Your task to perform on an android device: add a label to a message in the gmail app Image 0: 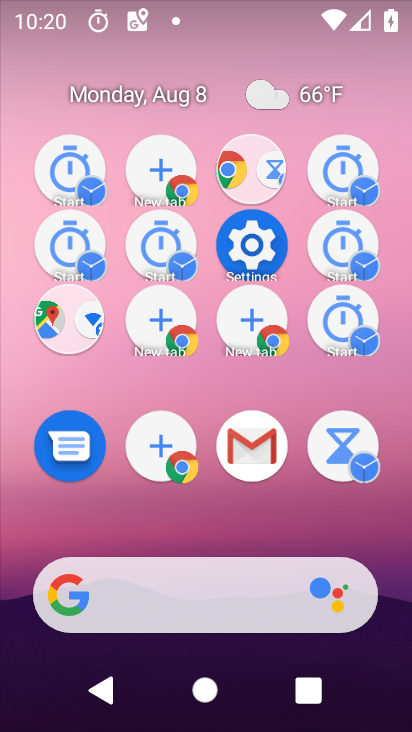
Step 0: drag from (254, 604) to (216, 271)
Your task to perform on an android device: add a label to a message in the gmail app Image 1: 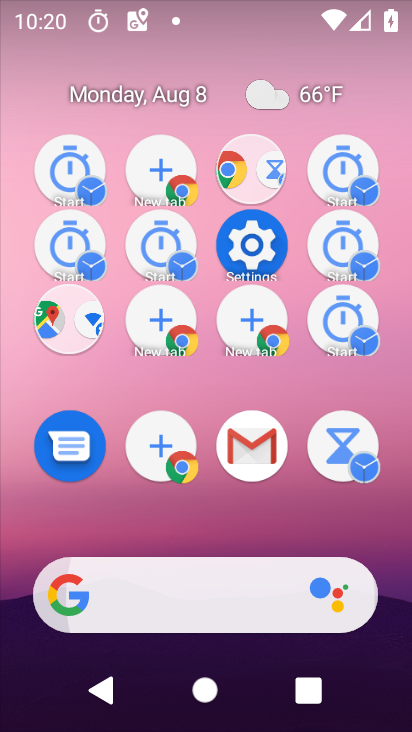
Step 1: drag from (238, 632) to (246, 278)
Your task to perform on an android device: add a label to a message in the gmail app Image 2: 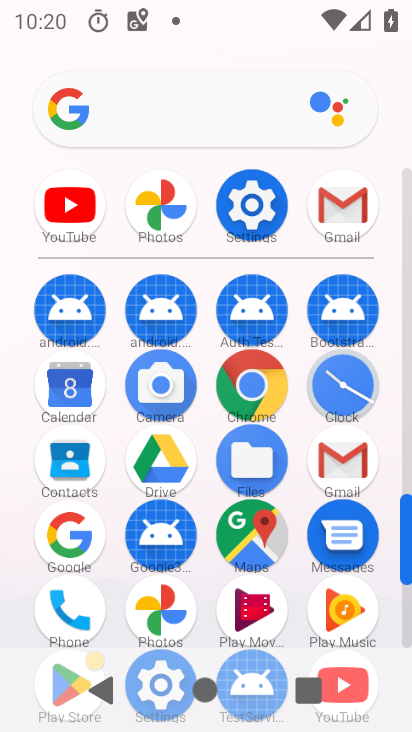
Step 2: drag from (282, 310) to (282, 272)
Your task to perform on an android device: add a label to a message in the gmail app Image 3: 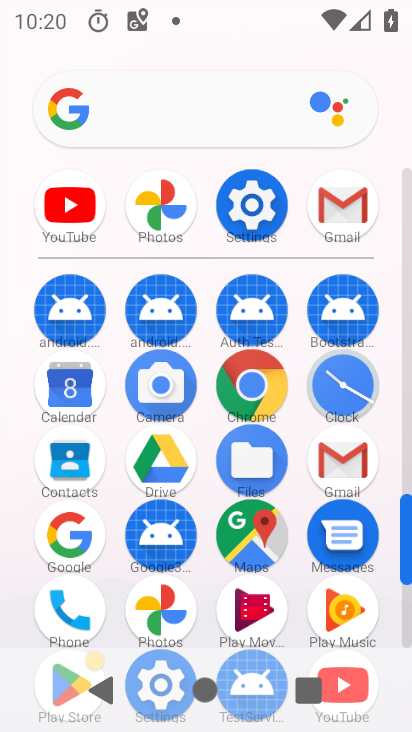
Step 3: click (336, 208)
Your task to perform on an android device: add a label to a message in the gmail app Image 4: 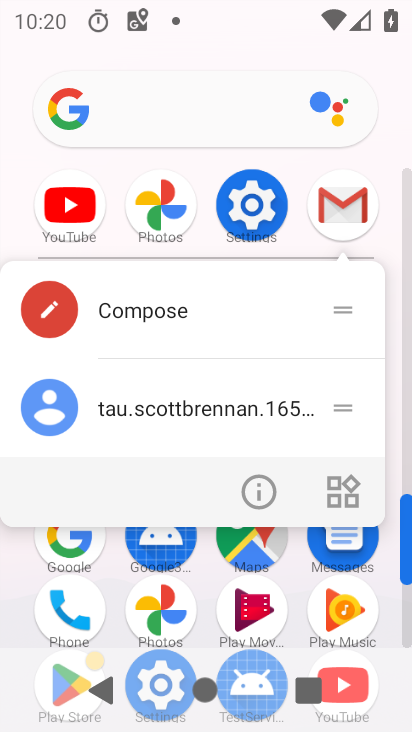
Step 4: click (192, 320)
Your task to perform on an android device: add a label to a message in the gmail app Image 5: 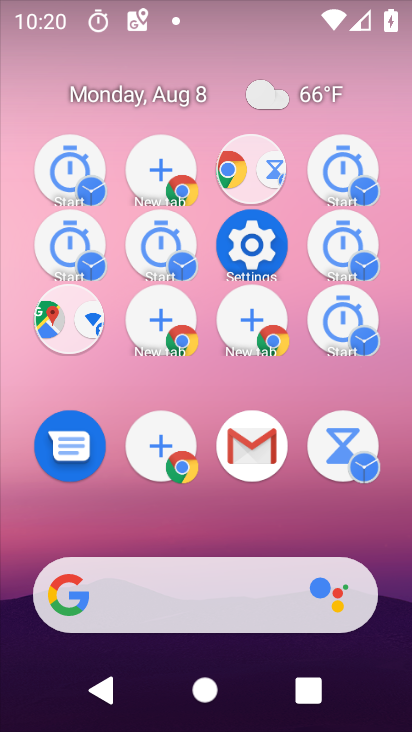
Step 5: press back button
Your task to perform on an android device: add a label to a message in the gmail app Image 6: 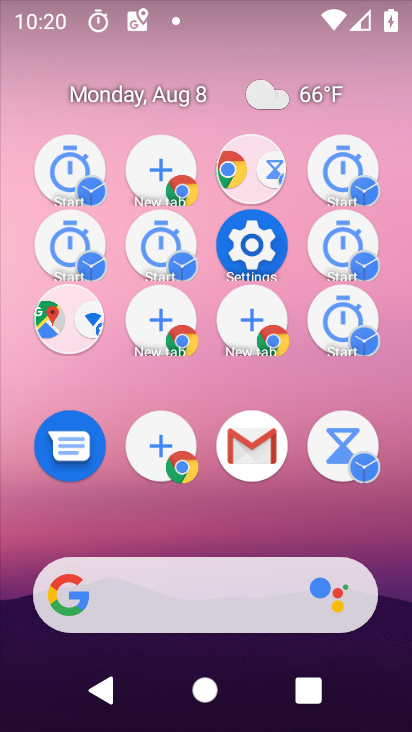
Step 6: drag from (237, 476) to (189, 238)
Your task to perform on an android device: add a label to a message in the gmail app Image 7: 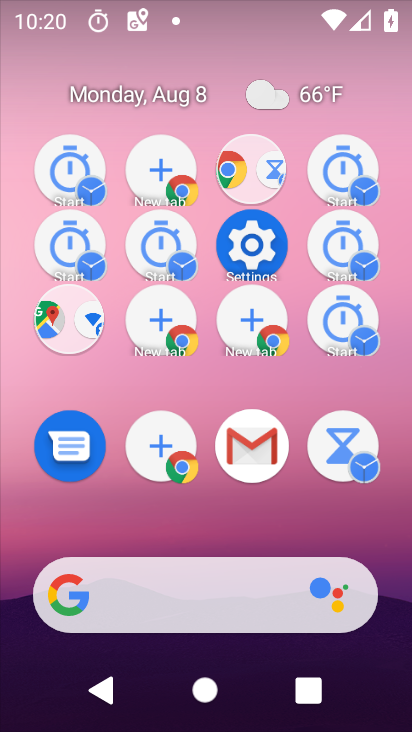
Step 7: drag from (159, 587) to (159, 343)
Your task to perform on an android device: add a label to a message in the gmail app Image 8: 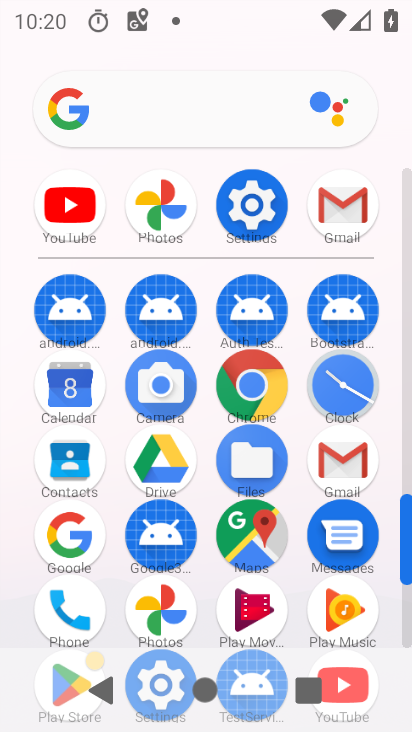
Step 8: click (347, 207)
Your task to perform on an android device: add a label to a message in the gmail app Image 9: 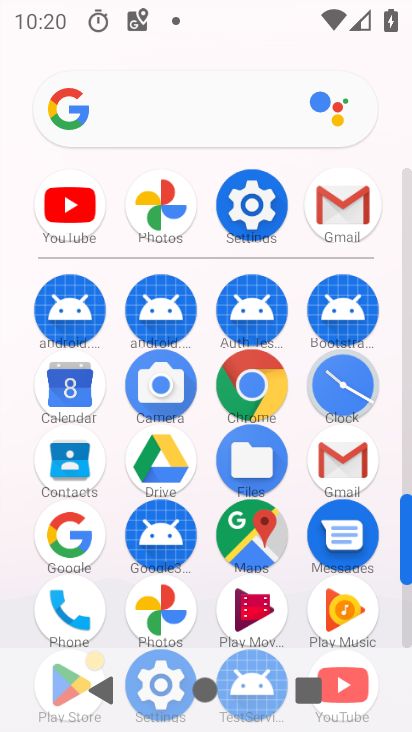
Step 9: click (345, 205)
Your task to perform on an android device: add a label to a message in the gmail app Image 10: 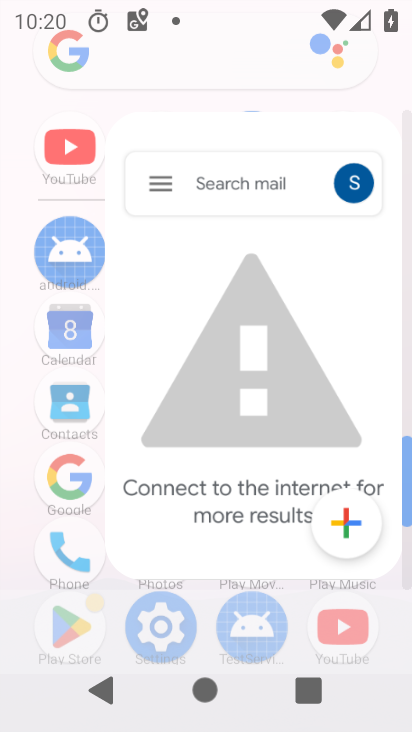
Step 10: click (344, 205)
Your task to perform on an android device: add a label to a message in the gmail app Image 11: 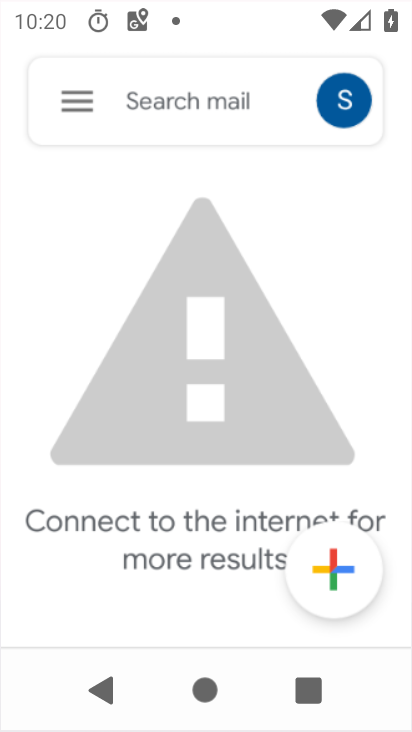
Step 11: click (344, 205)
Your task to perform on an android device: add a label to a message in the gmail app Image 12: 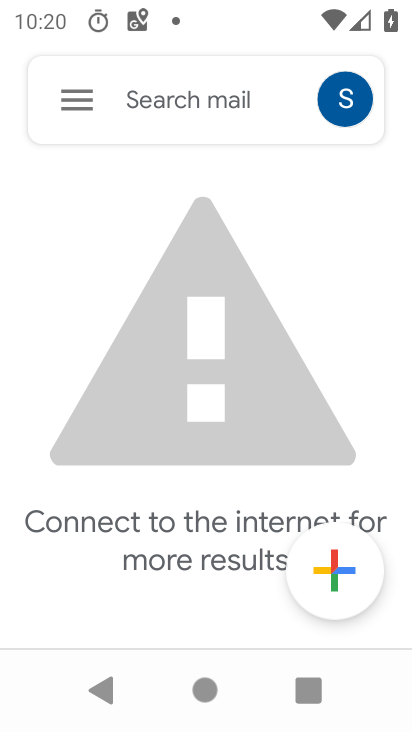
Step 12: press back button
Your task to perform on an android device: add a label to a message in the gmail app Image 13: 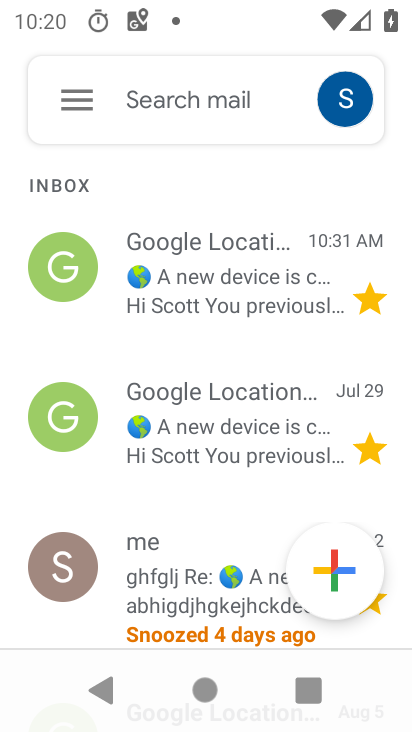
Step 13: drag from (186, 516) to (192, 263)
Your task to perform on an android device: add a label to a message in the gmail app Image 14: 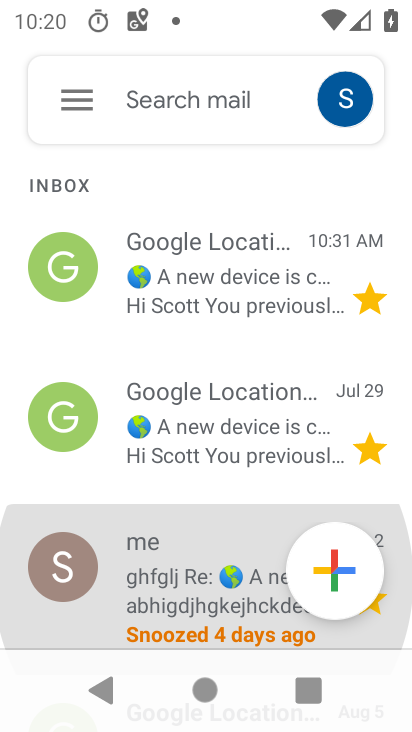
Step 14: drag from (247, 508) to (210, 208)
Your task to perform on an android device: add a label to a message in the gmail app Image 15: 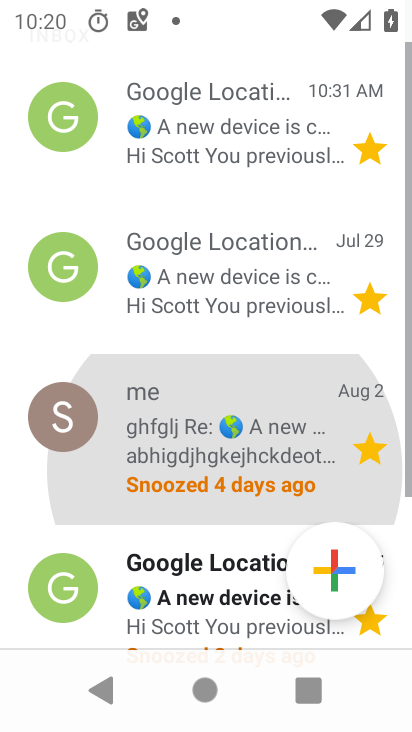
Step 15: drag from (236, 484) to (248, 120)
Your task to perform on an android device: add a label to a message in the gmail app Image 16: 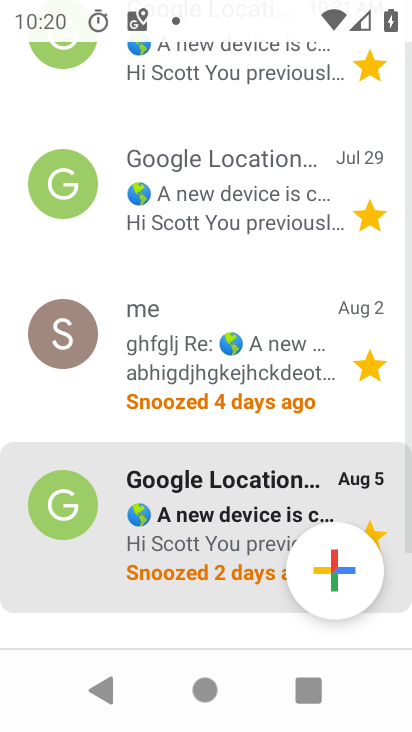
Step 16: drag from (324, 426) to (313, 177)
Your task to perform on an android device: add a label to a message in the gmail app Image 17: 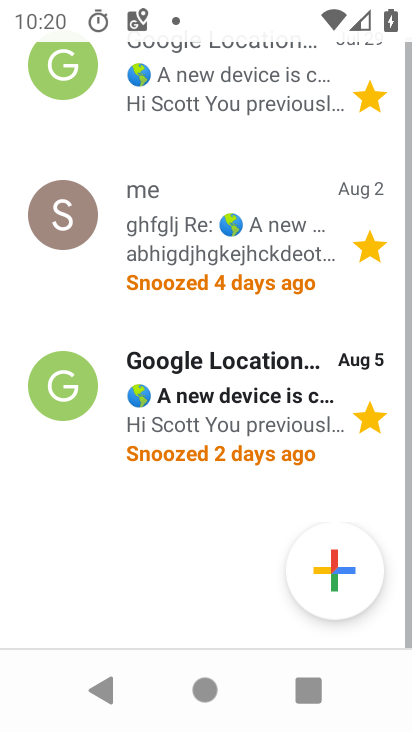
Step 17: drag from (309, 478) to (290, 219)
Your task to perform on an android device: add a label to a message in the gmail app Image 18: 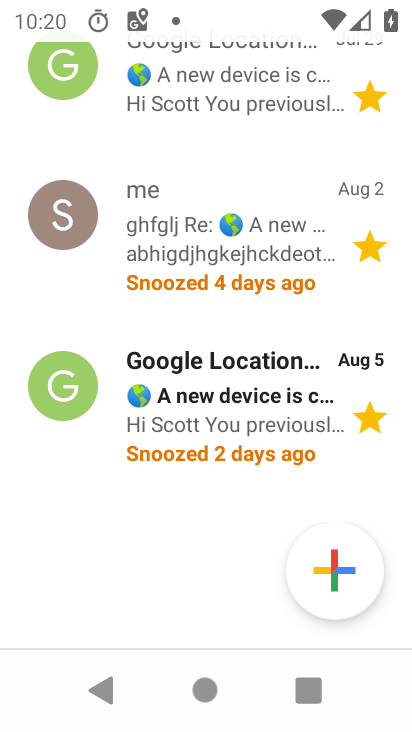
Step 18: drag from (175, 211) to (182, 479)
Your task to perform on an android device: add a label to a message in the gmail app Image 19: 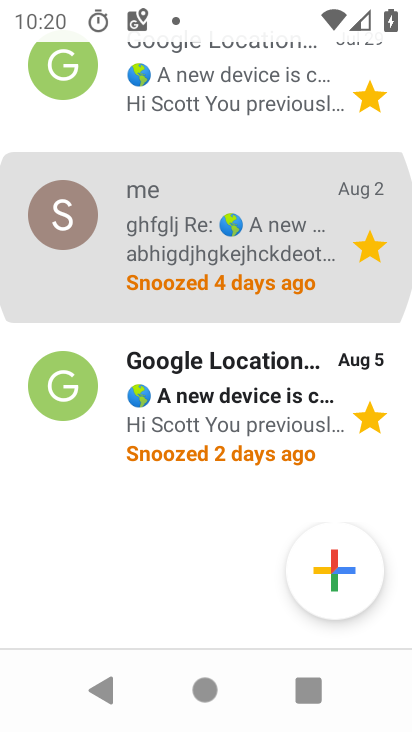
Step 19: drag from (183, 282) to (207, 527)
Your task to perform on an android device: add a label to a message in the gmail app Image 20: 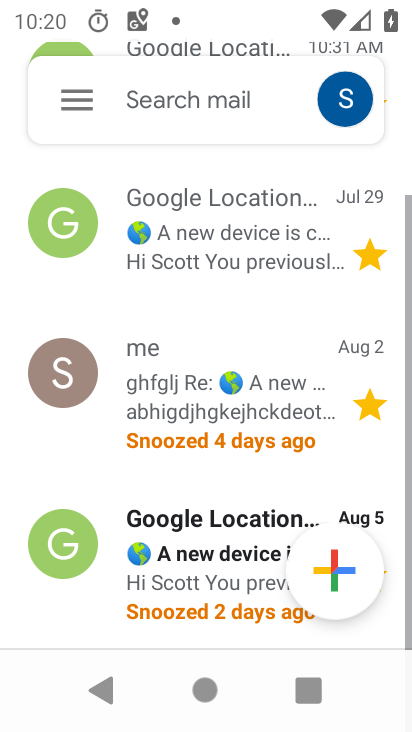
Step 20: click (216, 415)
Your task to perform on an android device: add a label to a message in the gmail app Image 21: 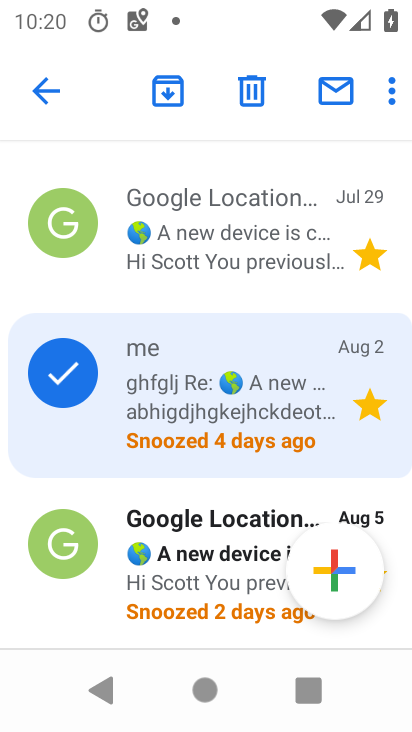
Step 21: click (390, 79)
Your task to perform on an android device: add a label to a message in the gmail app Image 22: 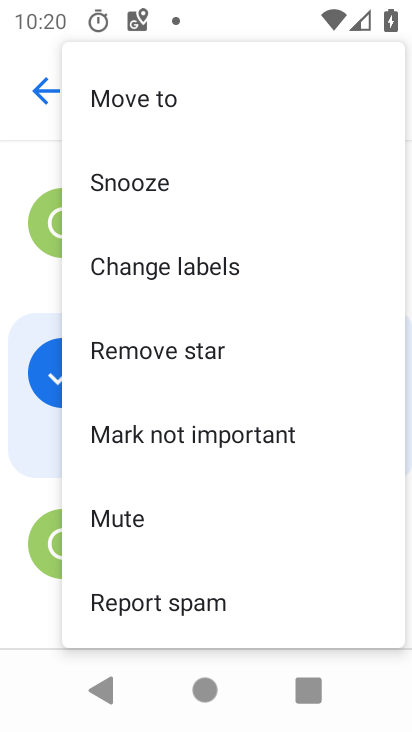
Step 22: click (148, 274)
Your task to perform on an android device: add a label to a message in the gmail app Image 23: 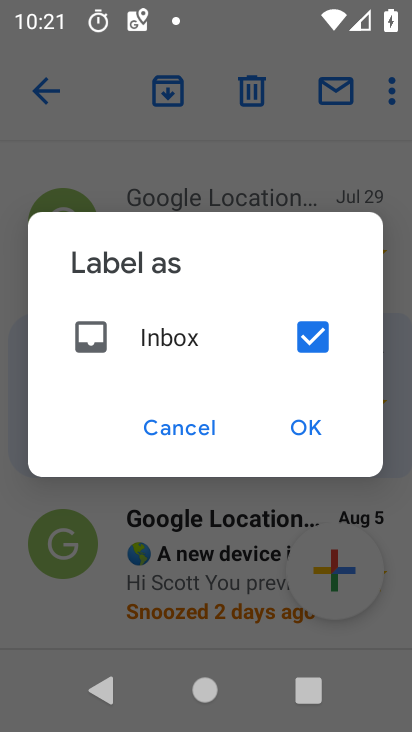
Step 23: click (295, 432)
Your task to perform on an android device: add a label to a message in the gmail app Image 24: 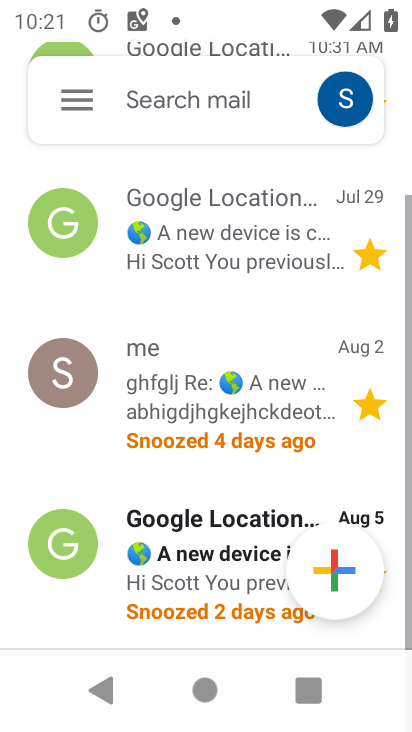
Step 24: task complete